Your task to perform on an android device: Open notification settings Image 0: 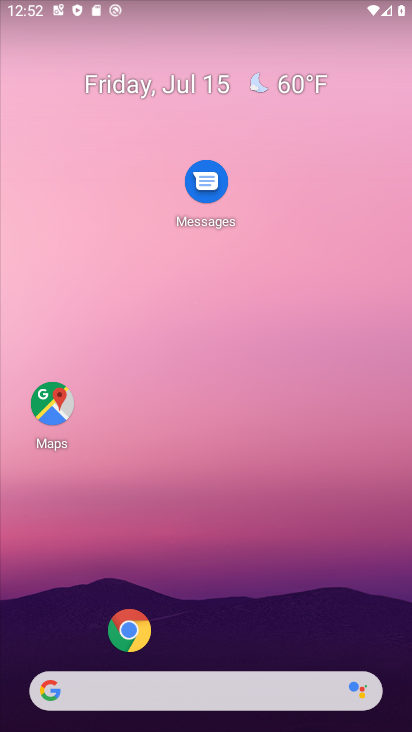
Step 0: drag from (35, 631) to (211, 60)
Your task to perform on an android device: Open notification settings Image 1: 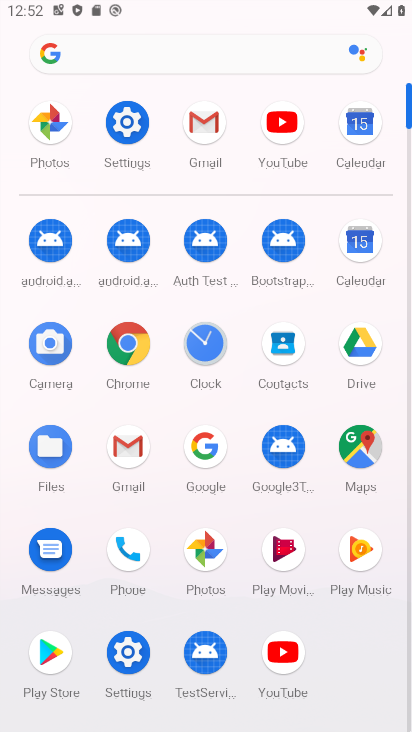
Step 1: click (122, 667)
Your task to perform on an android device: Open notification settings Image 2: 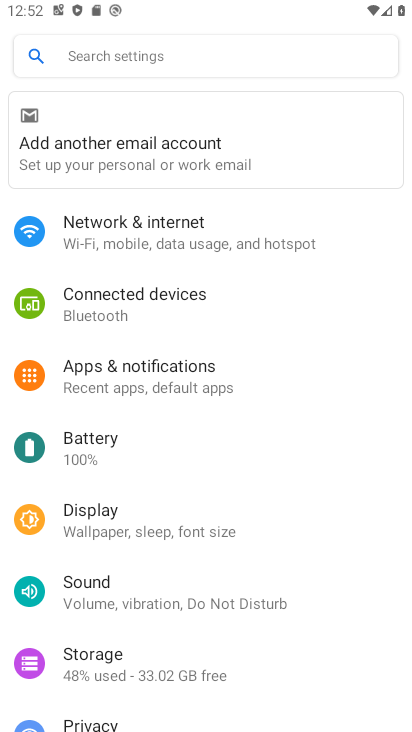
Step 2: drag from (277, 549) to (295, 341)
Your task to perform on an android device: Open notification settings Image 3: 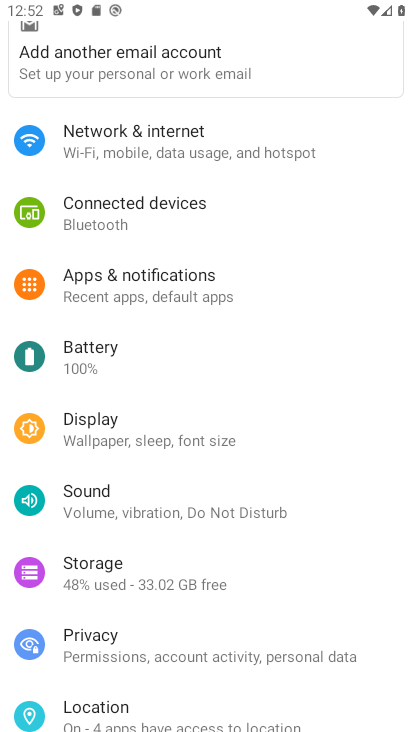
Step 3: click (141, 279)
Your task to perform on an android device: Open notification settings Image 4: 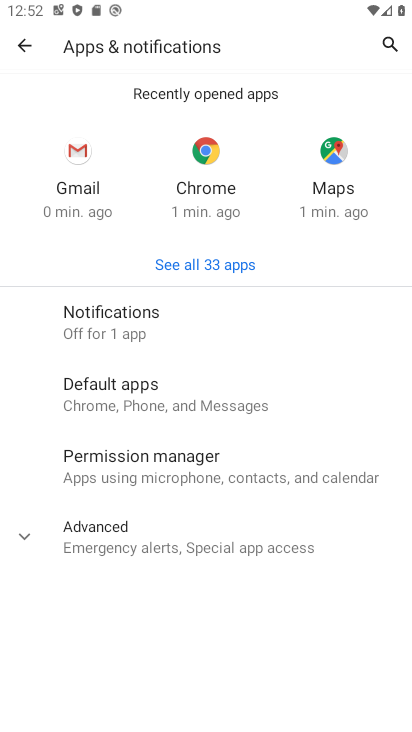
Step 4: click (133, 306)
Your task to perform on an android device: Open notification settings Image 5: 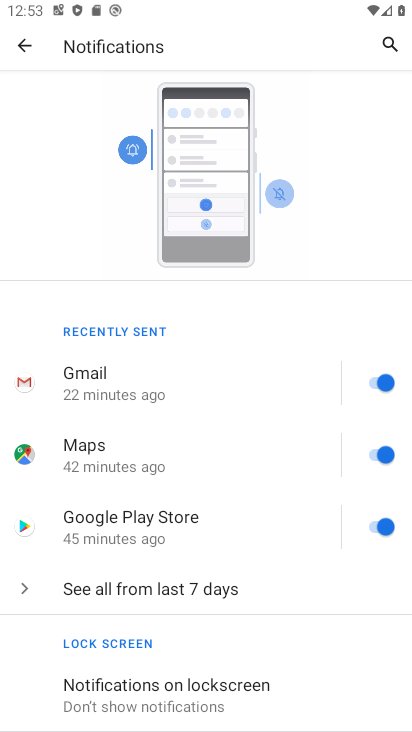
Step 5: task complete